Your task to perform on an android device: Go to settings Image 0: 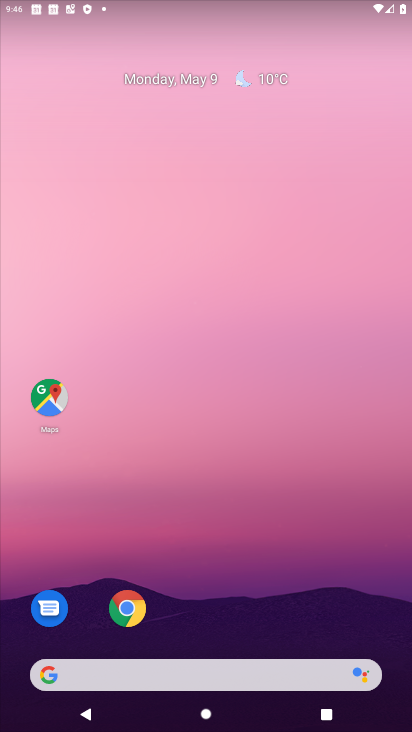
Step 0: drag from (222, 475) to (187, 2)
Your task to perform on an android device: Go to settings Image 1: 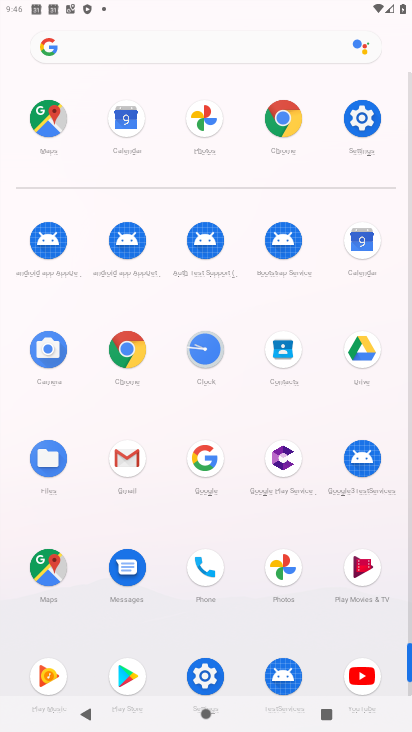
Step 1: click (354, 129)
Your task to perform on an android device: Go to settings Image 2: 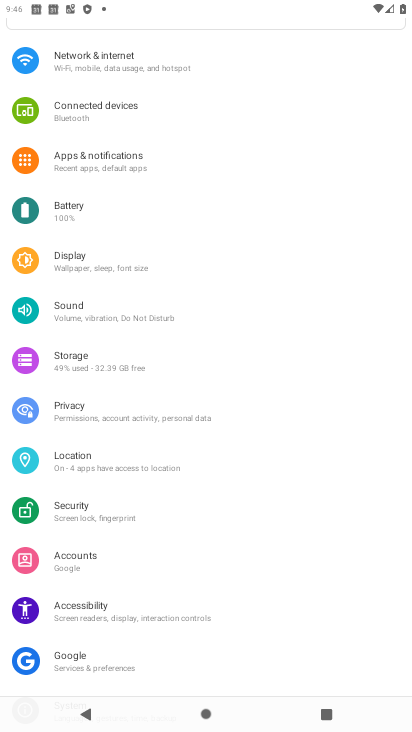
Step 2: task complete